Your task to perform on an android device: turn off notifications in google photos Image 0: 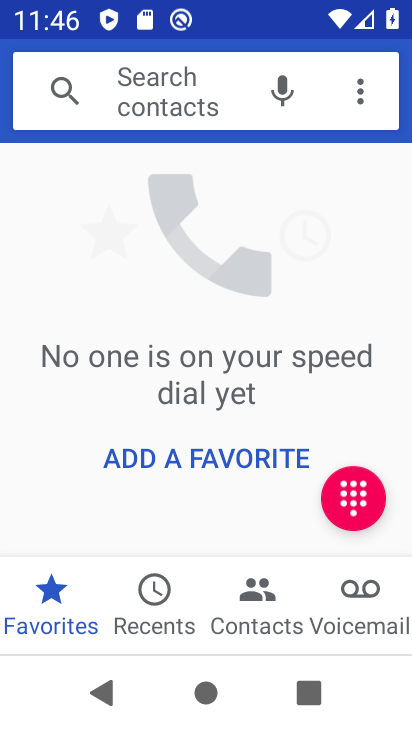
Step 0: press home button
Your task to perform on an android device: turn off notifications in google photos Image 1: 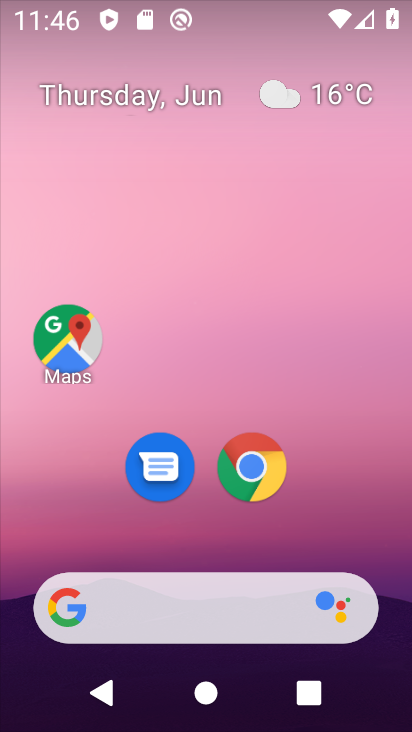
Step 1: drag from (398, 634) to (360, 182)
Your task to perform on an android device: turn off notifications in google photos Image 2: 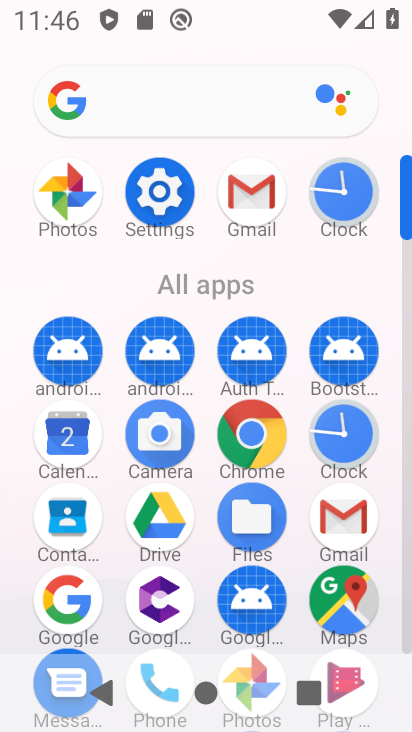
Step 2: click (403, 631)
Your task to perform on an android device: turn off notifications in google photos Image 3: 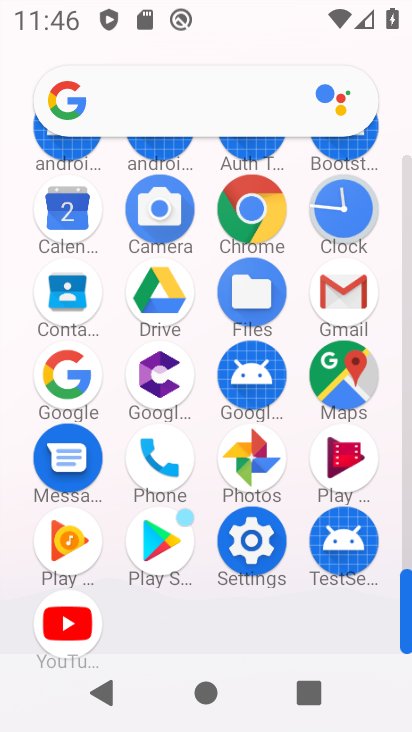
Step 3: click (251, 458)
Your task to perform on an android device: turn off notifications in google photos Image 4: 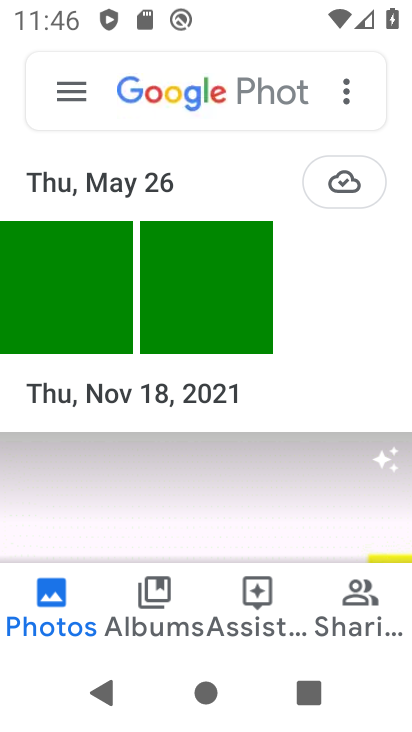
Step 4: click (73, 95)
Your task to perform on an android device: turn off notifications in google photos Image 5: 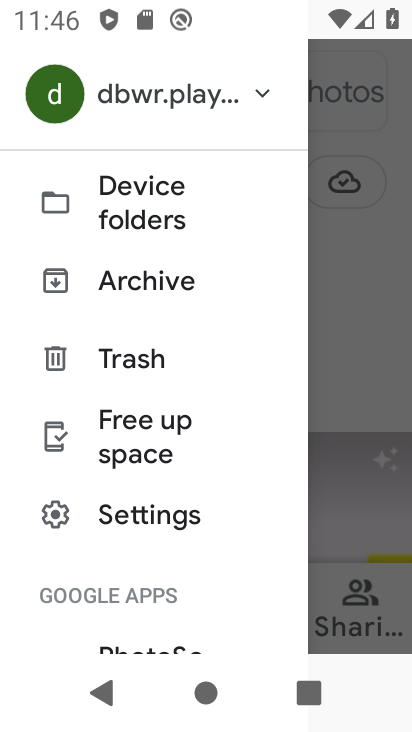
Step 5: click (149, 519)
Your task to perform on an android device: turn off notifications in google photos Image 6: 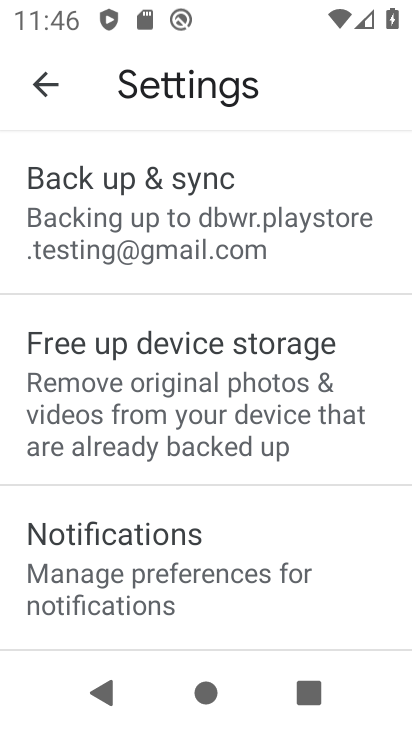
Step 6: click (159, 529)
Your task to perform on an android device: turn off notifications in google photos Image 7: 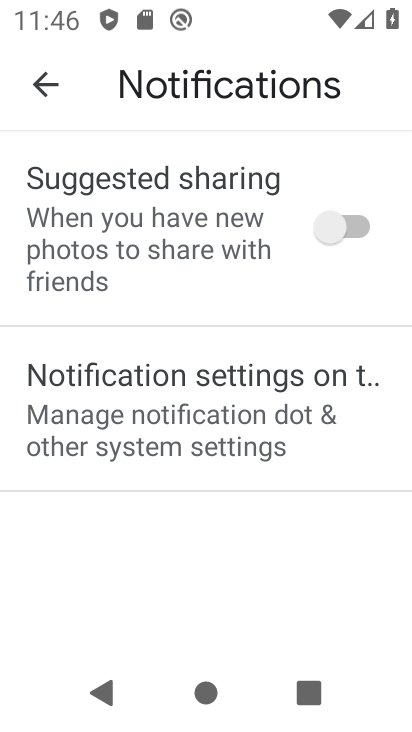
Step 7: click (119, 420)
Your task to perform on an android device: turn off notifications in google photos Image 8: 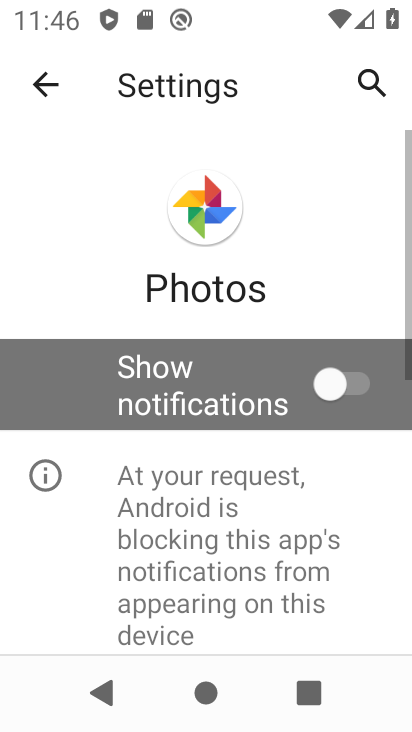
Step 8: task complete